Your task to perform on an android device: Go to Android settings Image 0: 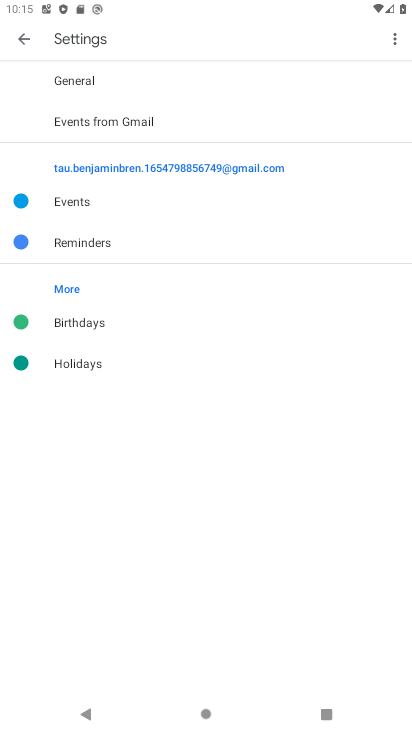
Step 0: press home button
Your task to perform on an android device: Go to Android settings Image 1: 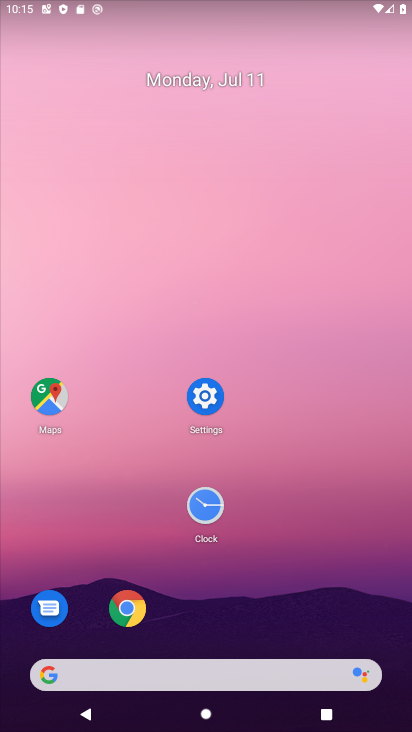
Step 1: click (200, 402)
Your task to perform on an android device: Go to Android settings Image 2: 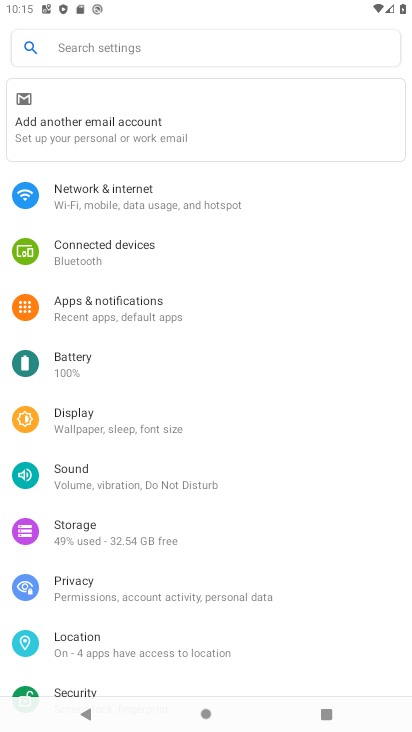
Step 2: task complete